Your task to perform on an android device: set an alarm Image 0: 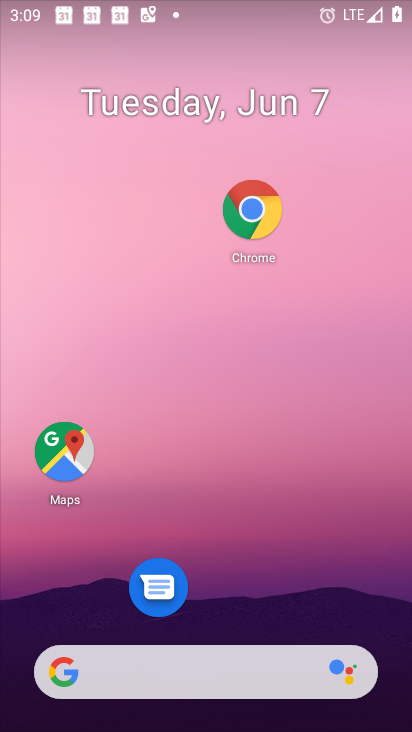
Step 0: drag from (251, 603) to (251, 353)
Your task to perform on an android device: set an alarm Image 1: 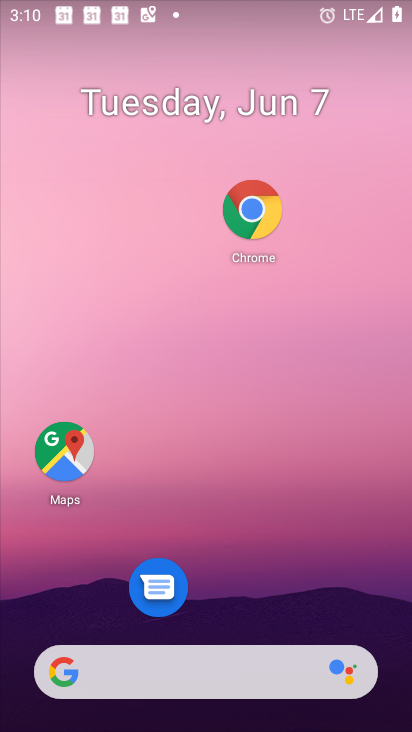
Step 1: drag from (194, 609) to (238, 324)
Your task to perform on an android device: set an alarm Image 2: 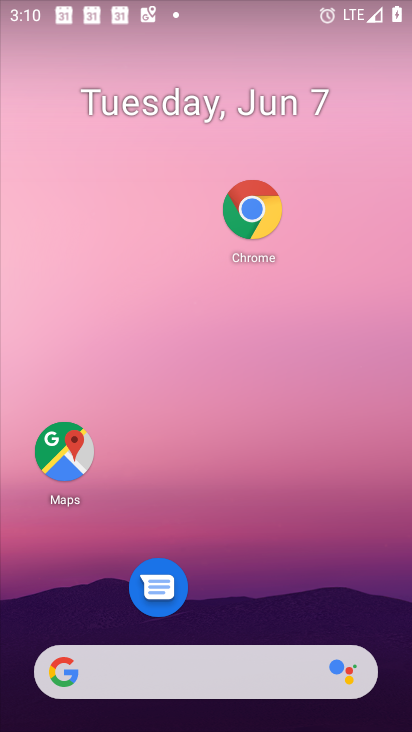
Step 2: drag from (260, 559) to (258, 51)
Your task to perform on an android device: set an alarm Image 3: 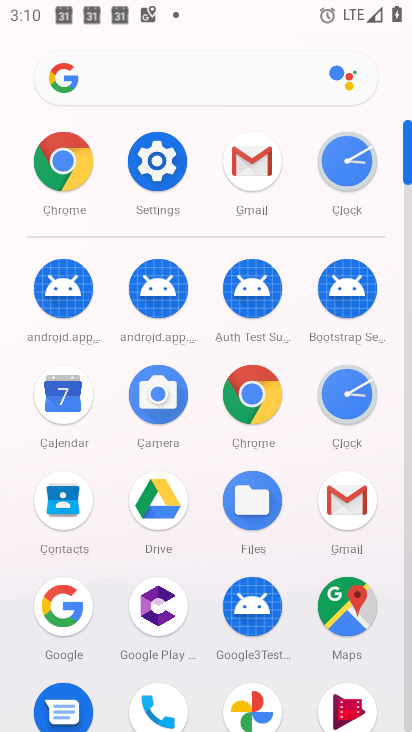
Step 3: click (349, 391)
Your task to perform on an android device: set an alarm Image 4: 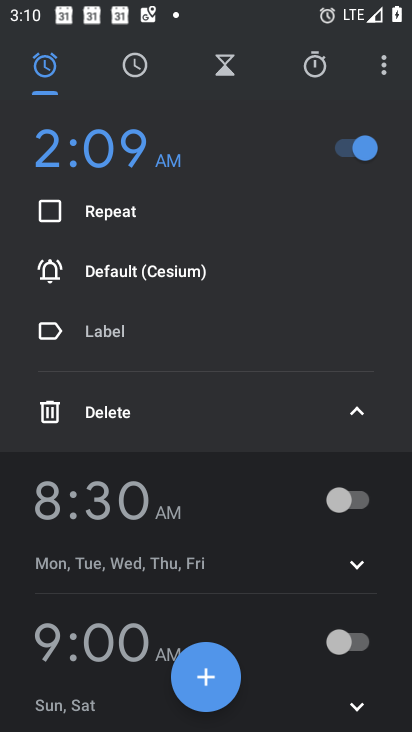
Step 4: click (223, 672)
Your task to perform on an android device: set an alarm Image 5: 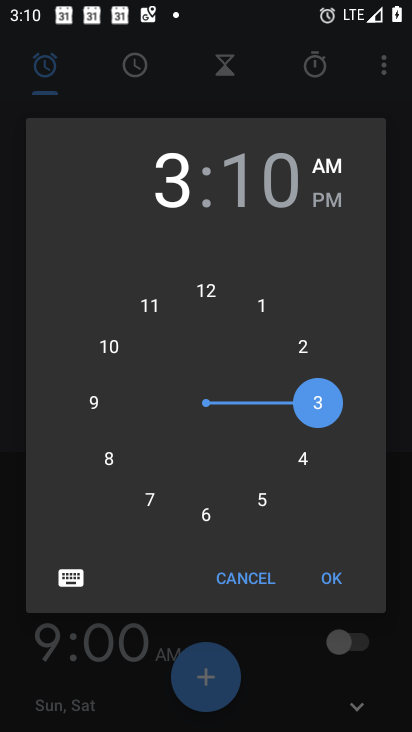
Step 5: click (340, 579)
Your task to perform on an android device: set an alarm Image 6: 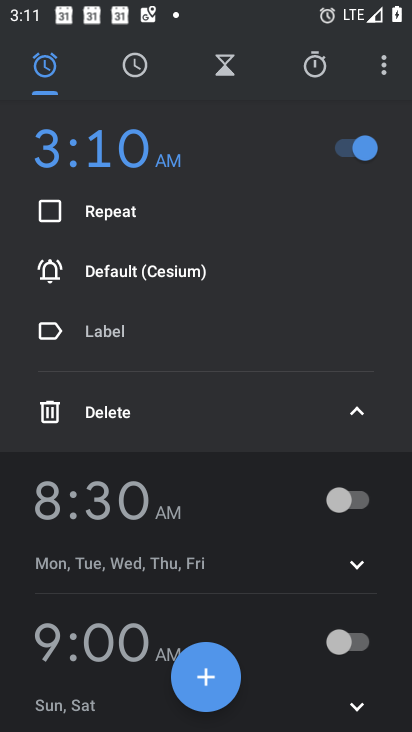
Step 6: task complete